Your task to perform on an android device: Is it going to rain this weekend? Image 0: 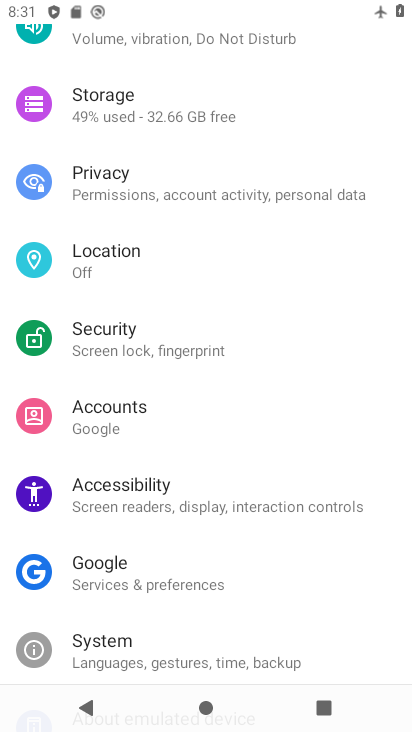
Step 0: press home button
Your task to perform on an android device: Is it going to rain this weekend? Image 1: 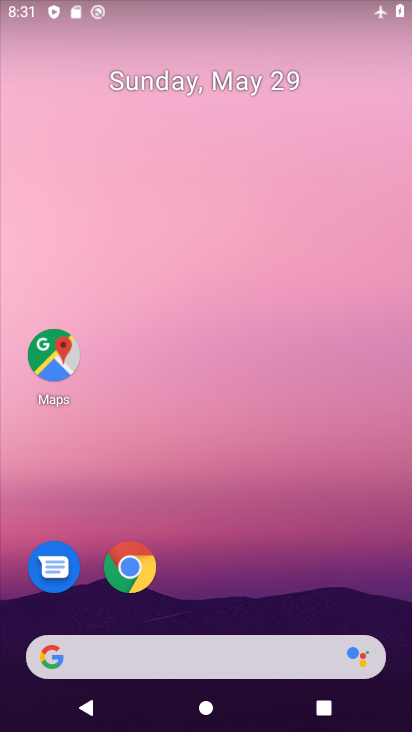
Step 1: drag from (3, 188) to (333, 199)
Your task to perform on an android device: Is it going to rain this weekend? Image 2: 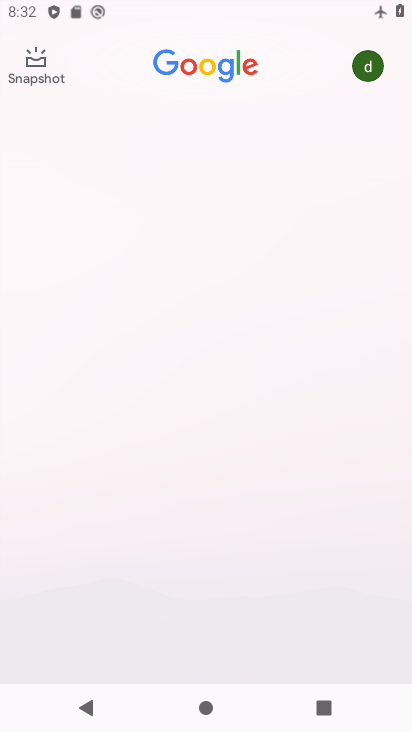
Step 2: drag from (149, 236) to (161, 412)
Your task to perform on an android device: Is it going to rain this weekend? Image 3: 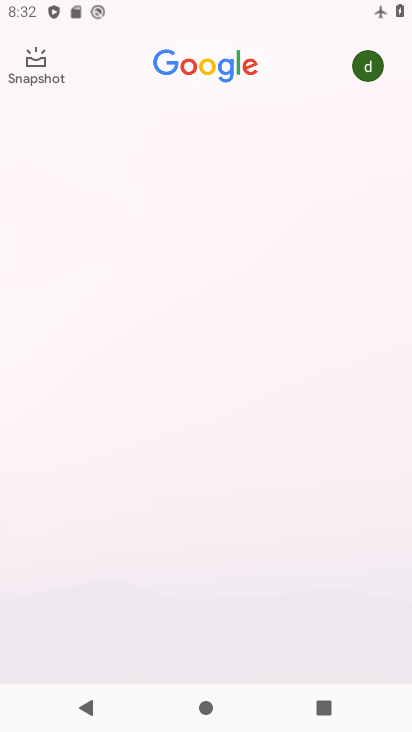
Step 3: drag from (277, 161) to (276, 496)
Your task to perform on an android device: Is it going to rain this weekend? Image 4: 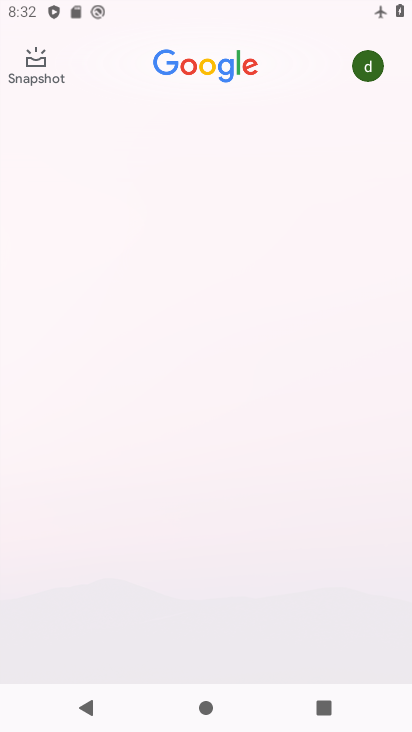
Step 4: press back button
Your task to perform on an android device: Is it going to rain this weekend? Image 5: 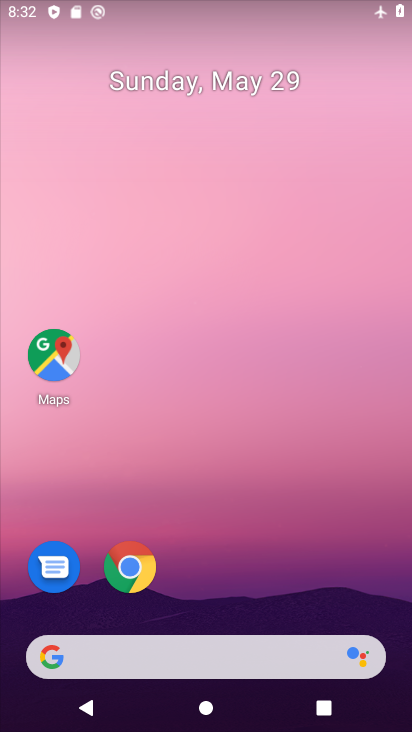
Step 5: click (239, 663)
Your task to perform on an android device: Is it going to rain this weekend? Image 6: 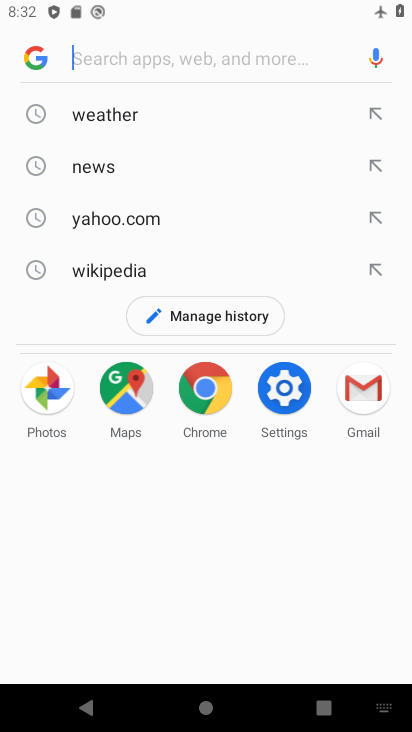
Step 6: click (101, 124)
Your task to perform on an android device: Is it going to rain this weekend? Image 7: 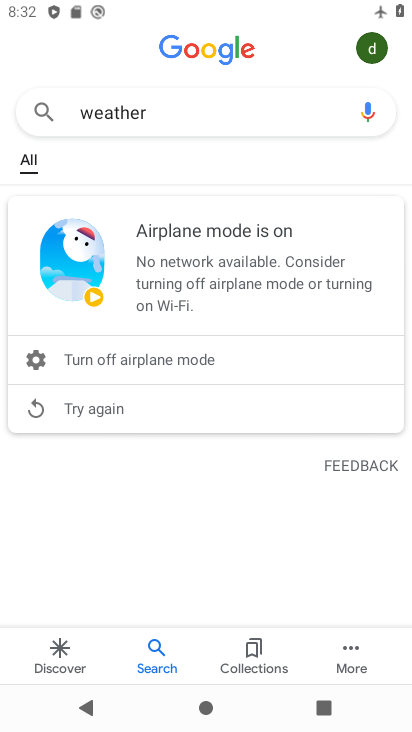
Step 7: click (42, 407)
Your task to perform on an android device: Is it going to rain this weekend? Image 8: 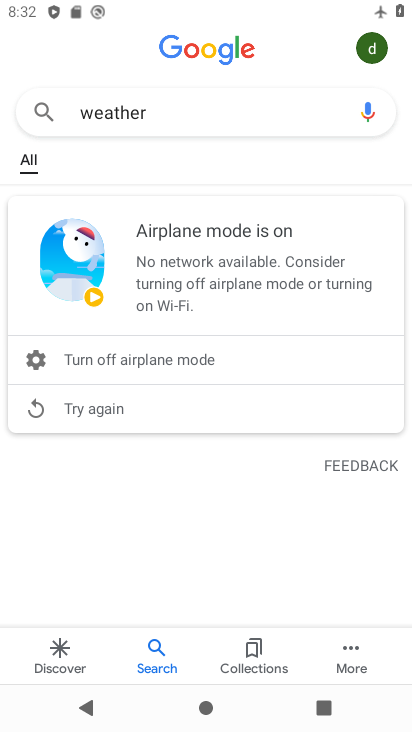
Step 8: task complete